Your task to perform on an android device: allow cookies in the chrome app Image 0: 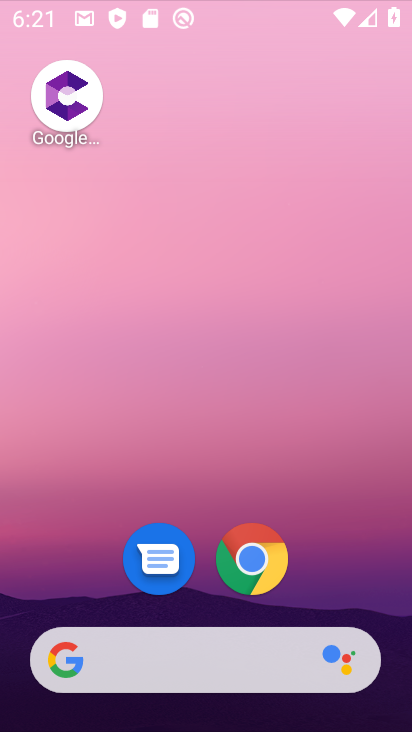
Step 0: click (348, 1)
Your task to perform on an android device: allow cookies in the chrome app Image 1: 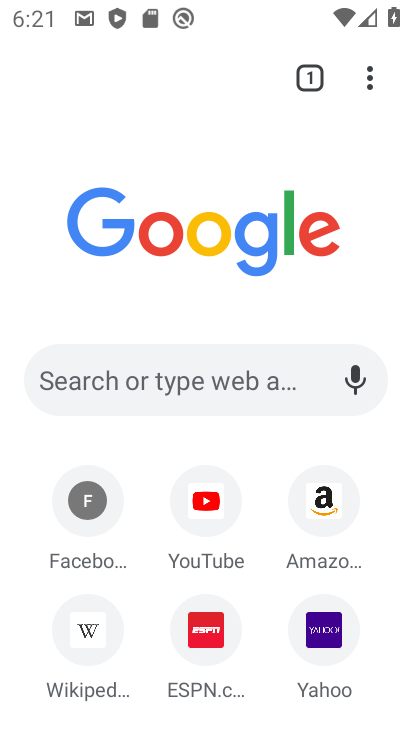
Step 1: press home button
Your task to perform on an android device: allow cookies in the chrome app Image 2: 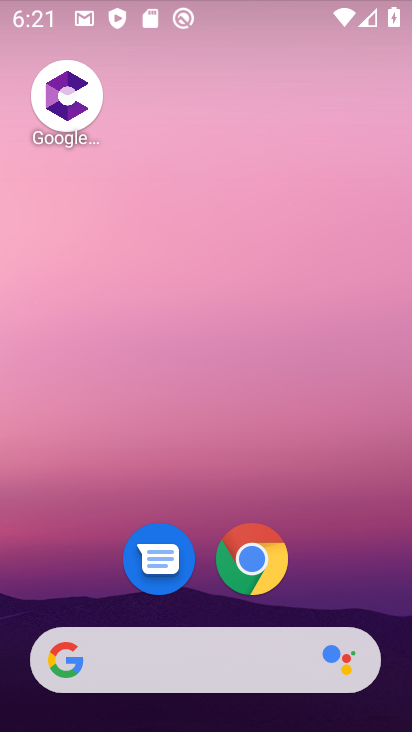
Step 2: drag from (404, 640) to (314, 9)
Your task to perform on an android device: allow cookies in the chrome app Image 3: 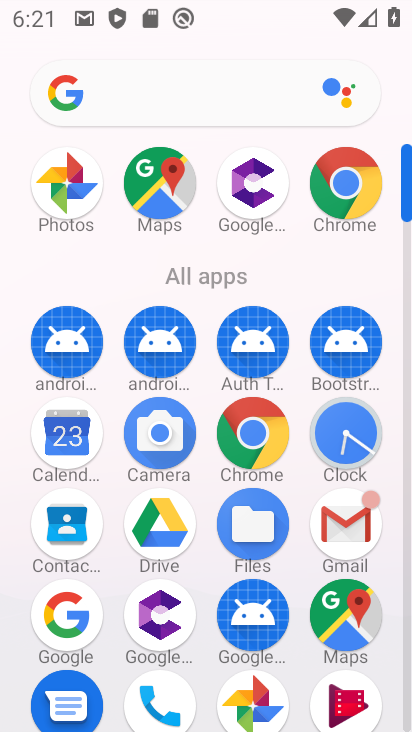
Step 3: drag from (313, 659) to (312, 150)
Your task to perform on an android device: allow cookies in the chrome app Image 4: 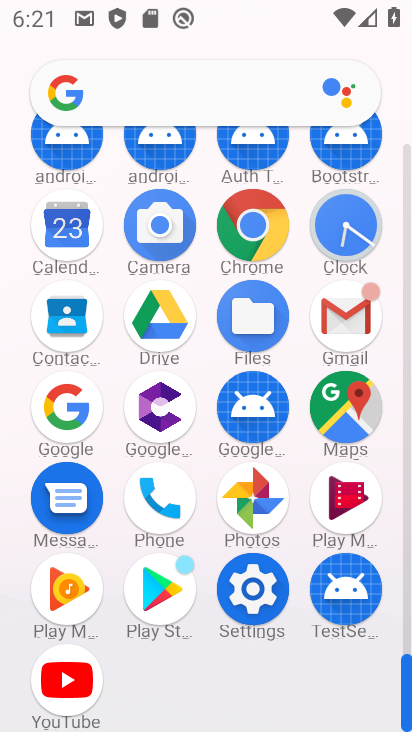
Step 4: click (65, 679)
Your task to perform on an android device: allow cookies in the chrome app Image 5: 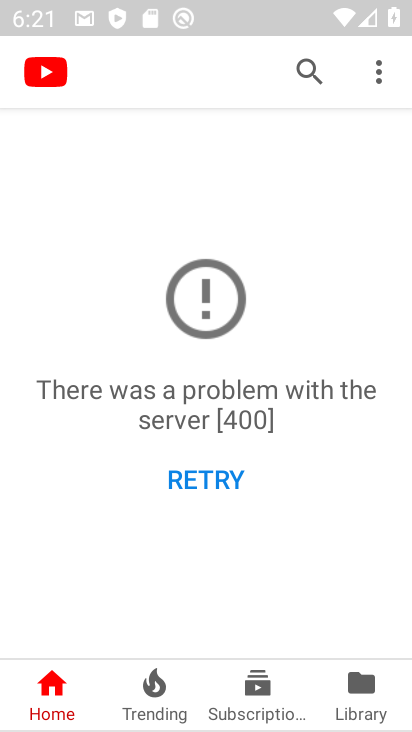
Step 5: click (194, 462)
Your task to perform on an android device: allow cookies in the chrome app Image 6: 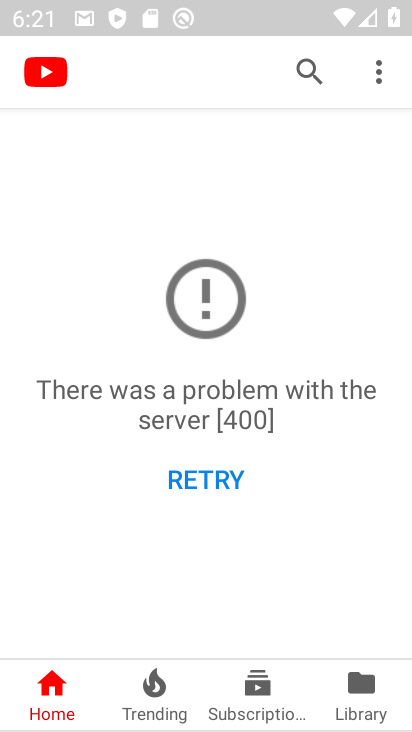
Step 6: task complete